Your task to perform on an android device: Open eBay Image 0: 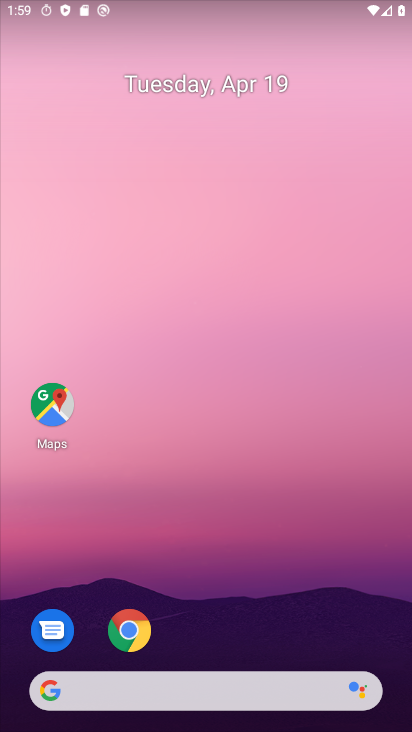
Step 0: click (124, 630)
Your task to perform on an android device: Open eBay Image 1: 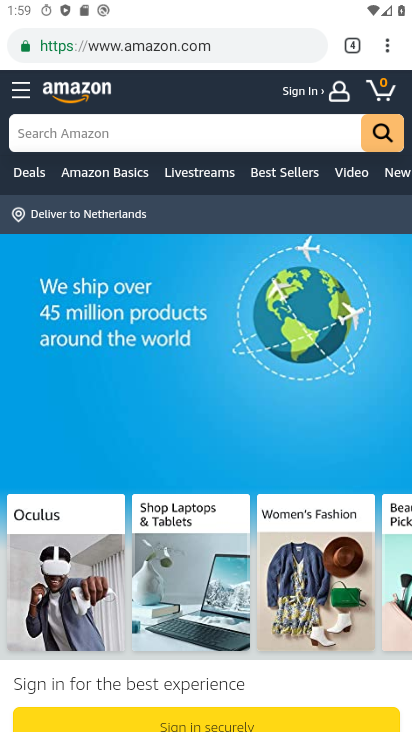
Step 1: click (355, 45)
Your task to perform on an android device: Open eBay Image 2: 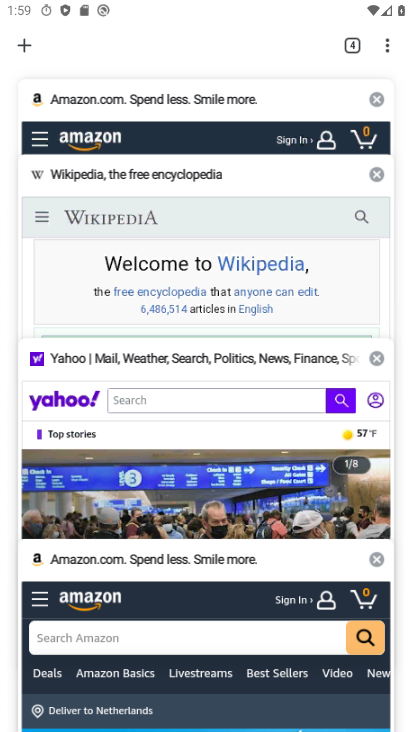
Step 2: click (20, 47)
Your task to perform on an android device: Open eBay Image 3: 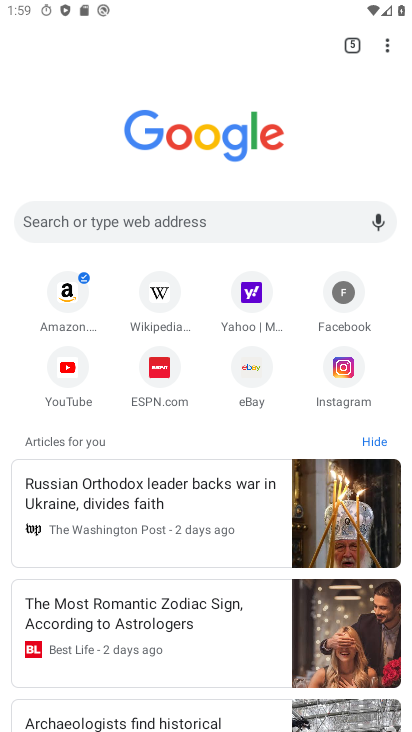
Step 3: click (258, 378)
Your task to perform on an android device: Open eBay Image 4: 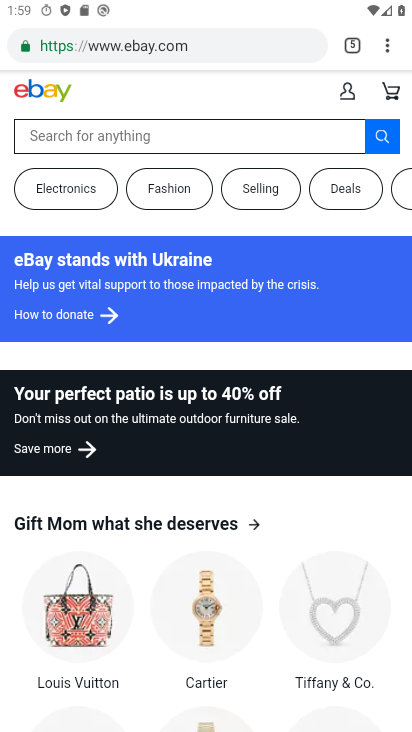
Step 4: task complete